Your task to perform on an android device: add a label to a message in the gmail app Image 0: 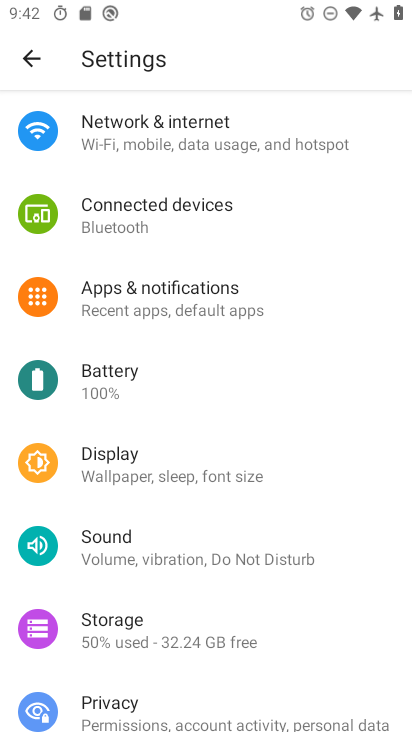
Step 0: press home button
Your task to perform on an android device: add a label to a message in the gmail app Image 1: 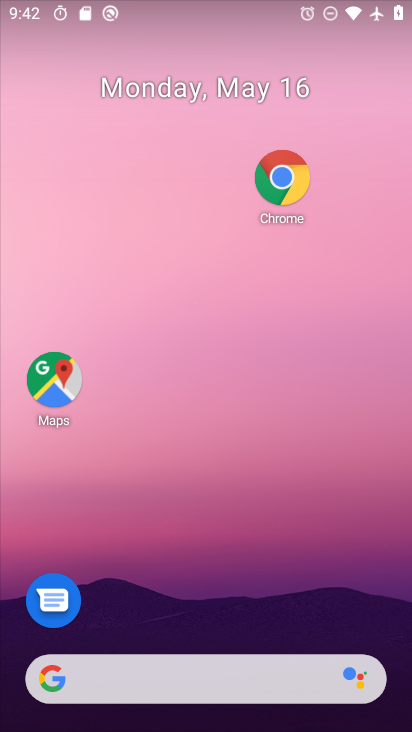
Step 1: drag from (151, 684) to (283, 237)
Your task to perform on an android device: add a label to a message in the gmail app Image 2: 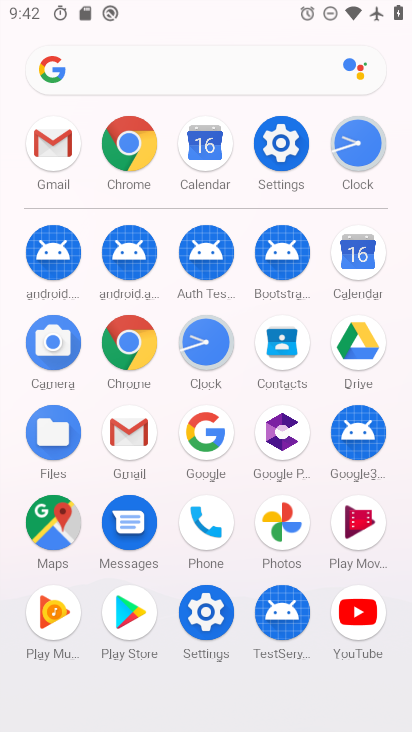
Step 2: click (63, 148)
Your task to perform on an android device: add a label to a message in the gmail app Image 3: 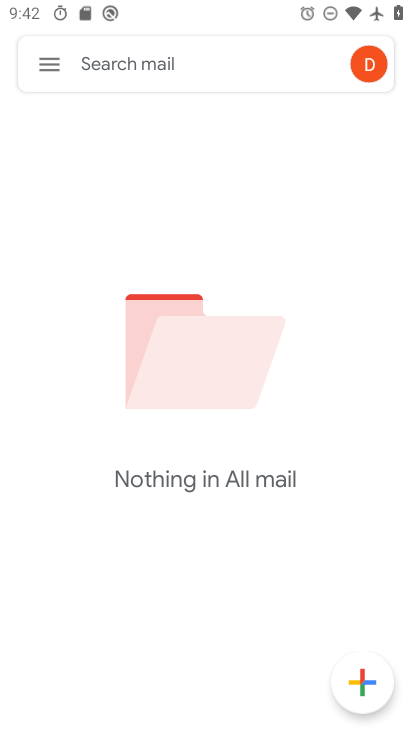
Step 3: task complete